Your task to perform on an android device: When is my next meeting? Image 0: 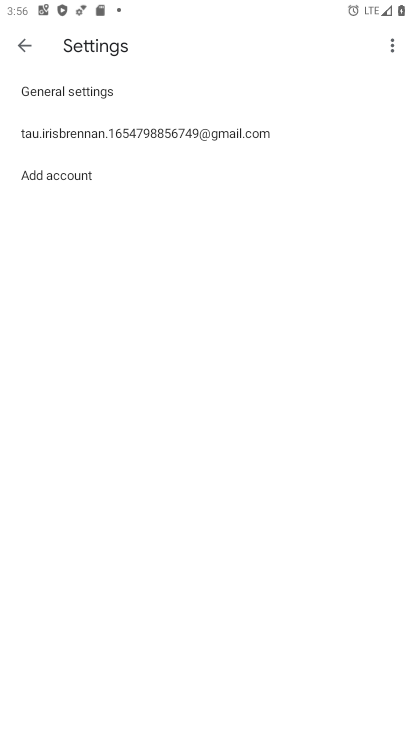
Step 0: press back button
Your task to perform on an android device: When is my next meeting? Image 1: 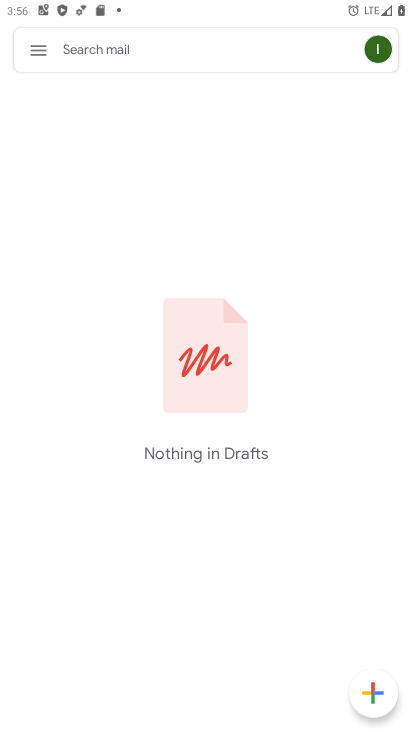
Step 1: press back button
Your task to perform on an android device: When is my next meeting? Image 2: 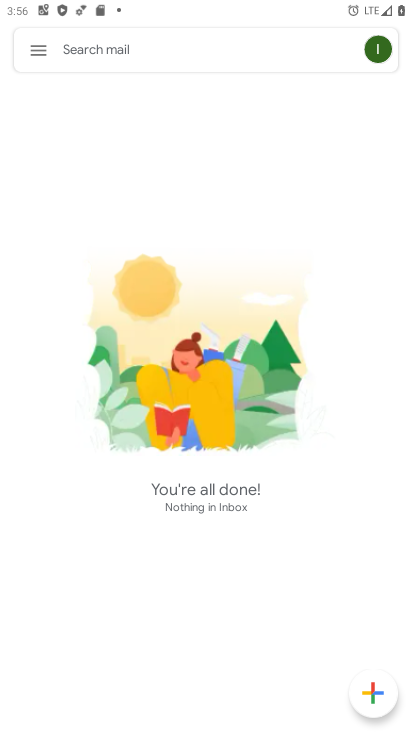
Step 2: press back button
Your task to perform on an android device: When is my next meeting? Image 3: 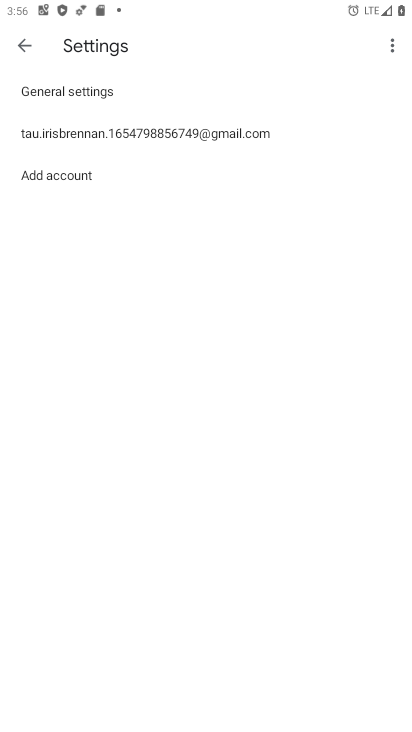
Step 3: press back button
Your task to perform on an android device: When is my next meeting? Image 4: 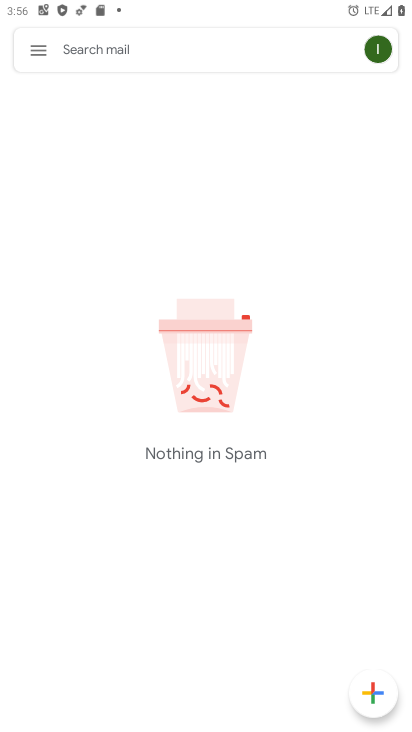
Step 4: press back button
Your task to perform on an android device: When is my next meeting? Image 5: 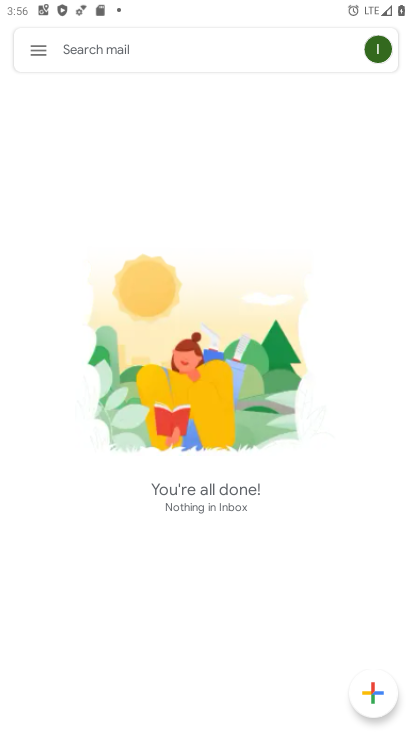
Step 5: press back button
Your task to perform on an android device: When is my next meeting? Image 6: 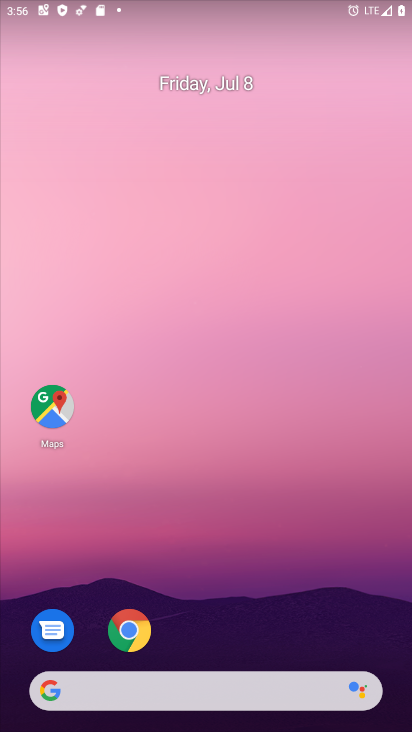
Step 6: drag from (215, 655) to (258, 122)
Your task to perform on an android device: When is my next meeting? Image 7: 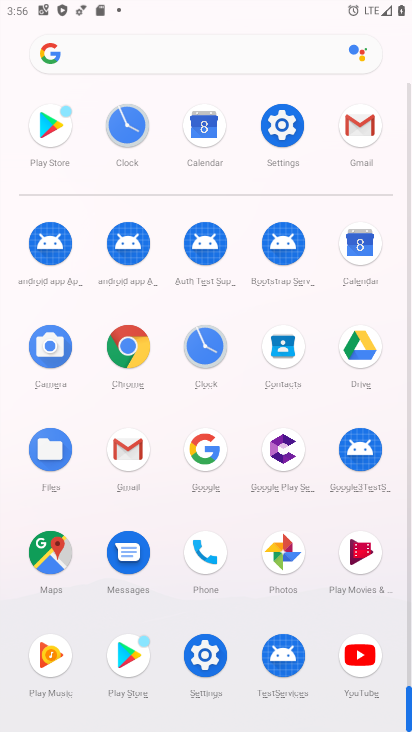
Step 7: click (363, 249)
Your task to perform on an android device: When is my next meeting? Image 8: 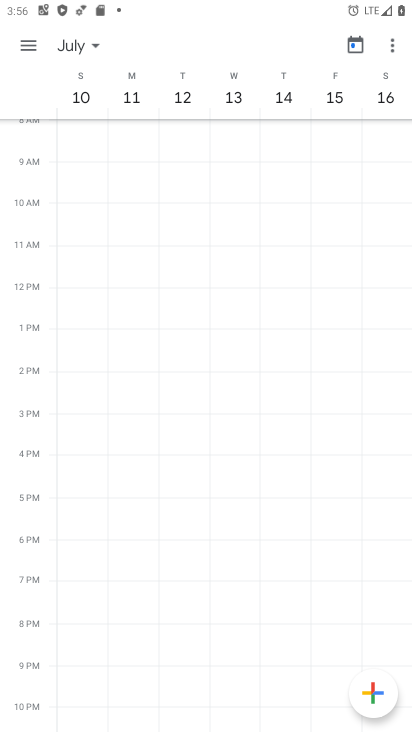
Step 8: click (358, 41)
Your task to perform on an android device: When is my next meeting? Image 9: 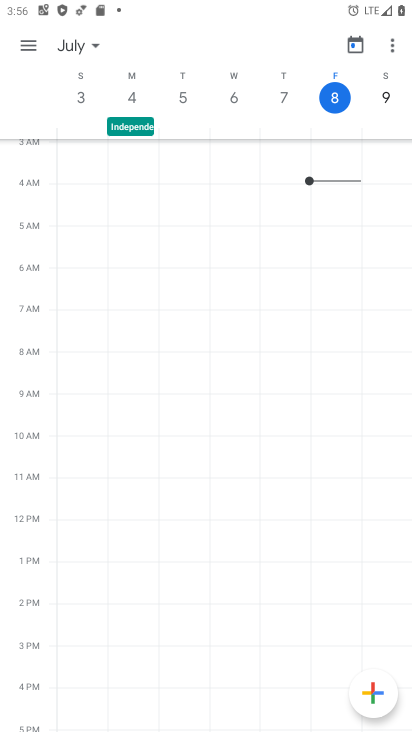
Step 9: click (90, 46)
Your task to perform on an android device: When is my next meeting? Image 10: 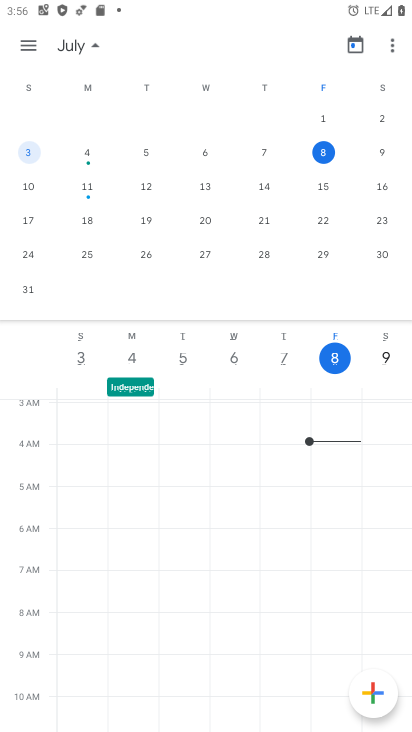
Step 10: click (91, 189)
Your task to perform on an android device: When is my next meeting? Image 11: 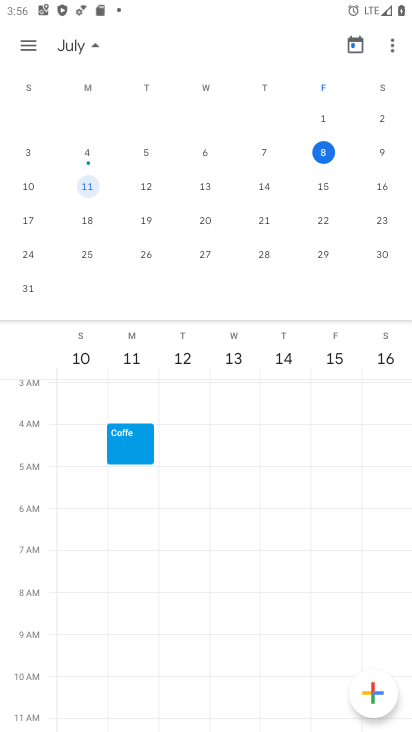
Step 11: click (28, 41)
Your task to perform on an android device: When is my next meeting? Image 12: 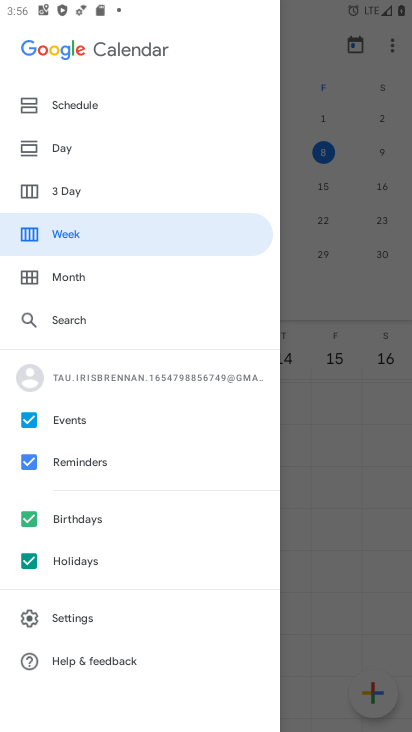
Step 12: click (79, 220)
Your task to perform on an android device: When is my next meeting? Image 13: 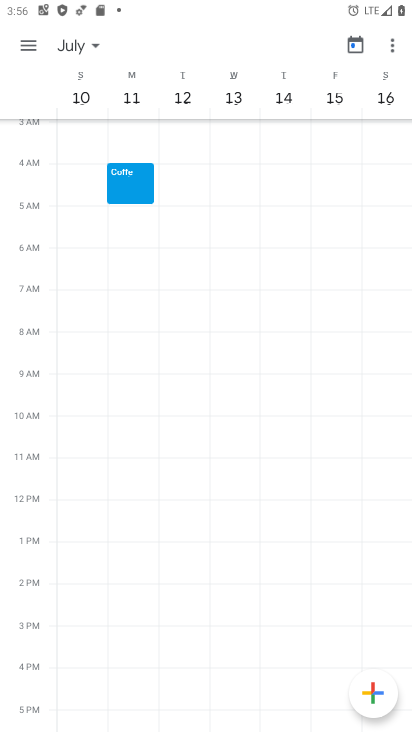
Step 13: task complete